Your task to perform on an android device: change your default location settings in chrome Image 0: 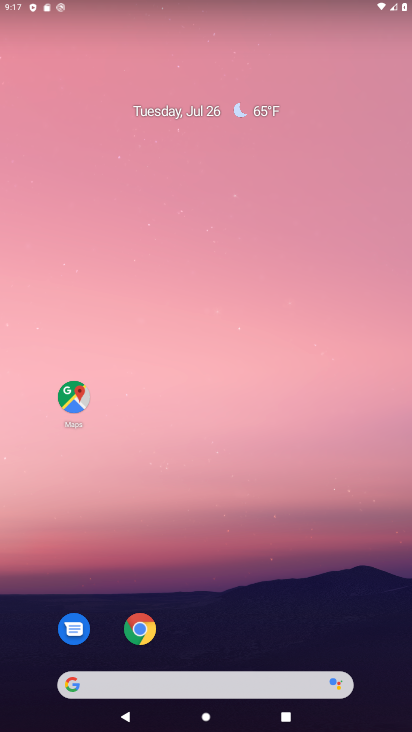
Step 0: drag from (272, 609) to (238, 108)
Your task to perform on an android device: change your default location settings in chrome Image 1: 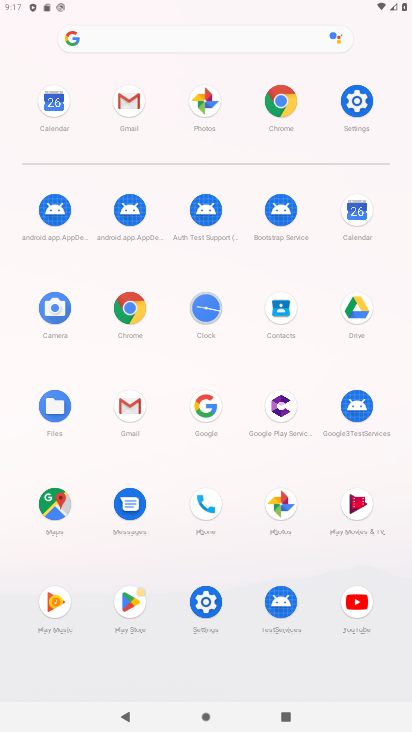
Step 1: click (124, 314)
Your task to perform on an android device: change your default location settings in chrome Image 2: 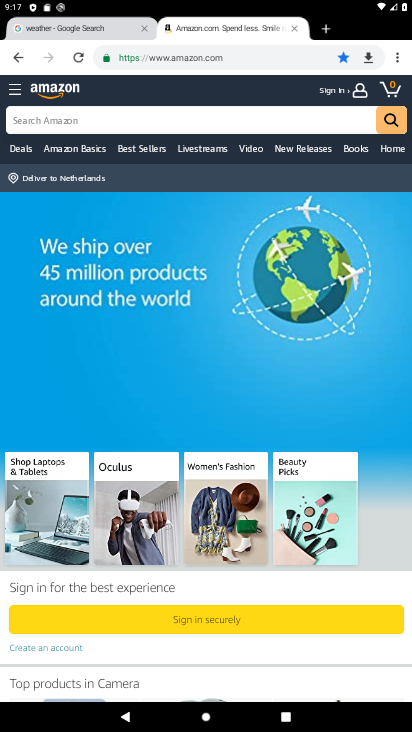
Step 2: drag from (399, 57) to (302, 375)
Your task to perform on an android device: change your default location settings in chrome Image 3: 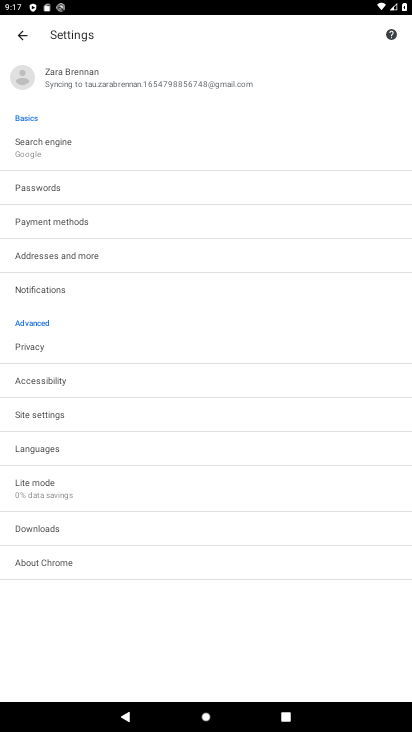
Step 3: click (66, 415)
Your task to perform on an android device: change your default location settings in chrome Image 4: 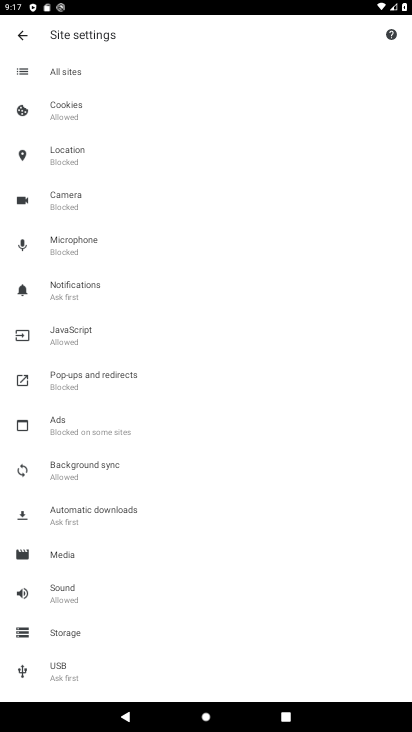
Step 4: click (59, 154)
Your task to perform on an android device: change your default location settings in chrome Image 5: 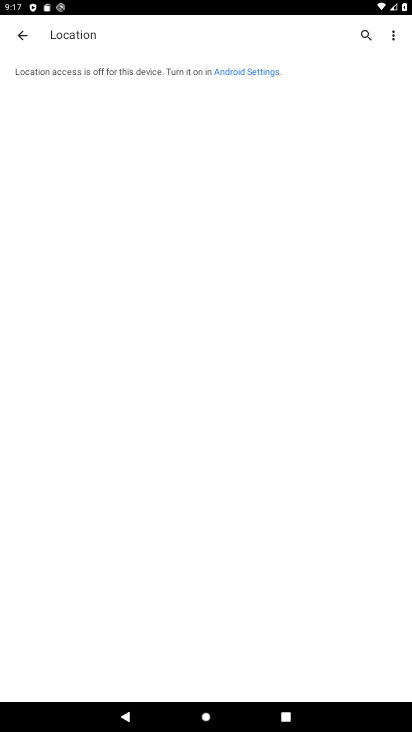
Step 5: task complete